Your task to perform on an android device: delete location history Image 0: 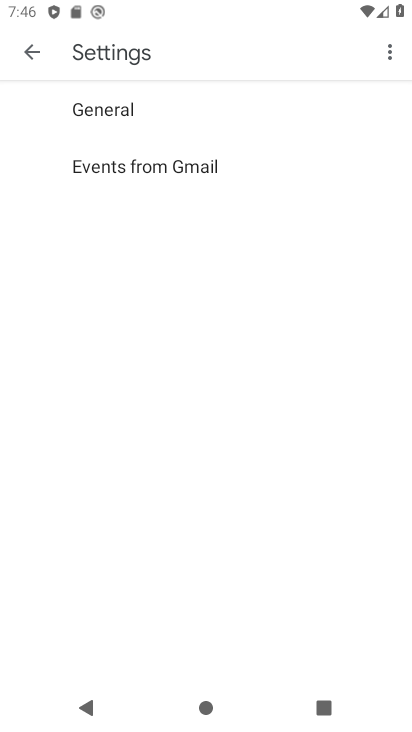
Step 0: press home button
Your task to perform on an android device: delete location history Image 1: 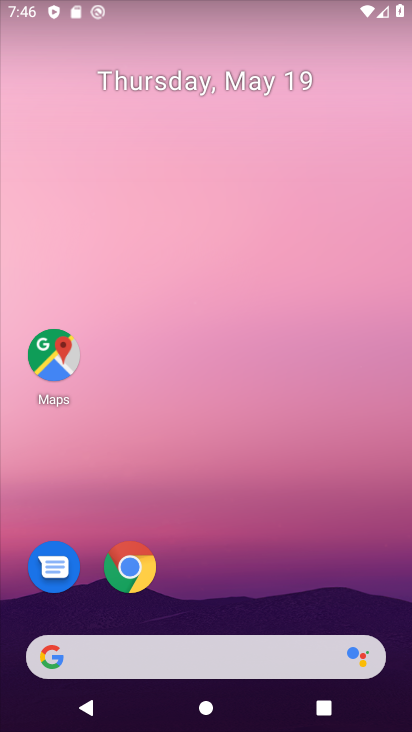
Step 1: click (55, 357)
Your task to perform on an android device: delete location history Image 2: 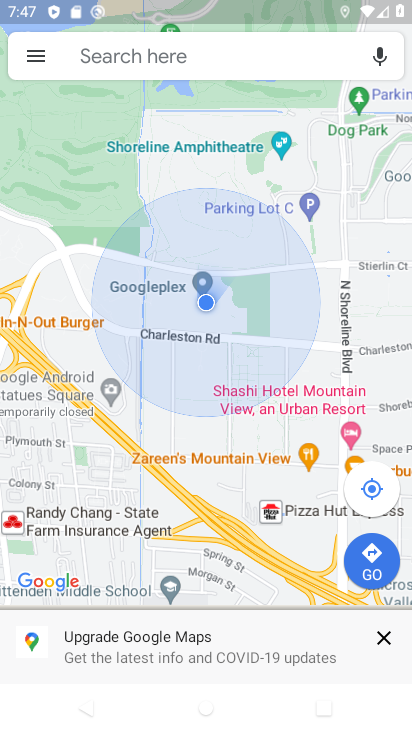
Step 2: click (34, 53)
Your task to perform on an android device: delete location history Image 3: 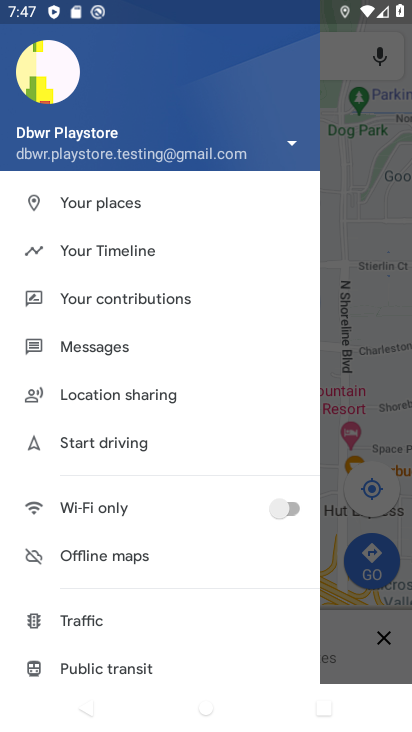
Step 3: click (100, 253)
Your task to perform on an android device: delete location history Image 4: 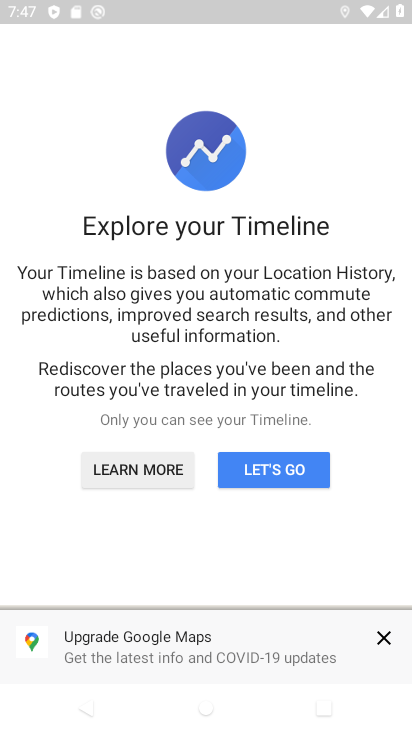
Step 4: click (269, 473)
Your task to perform on an android device: delete location history Image 5: 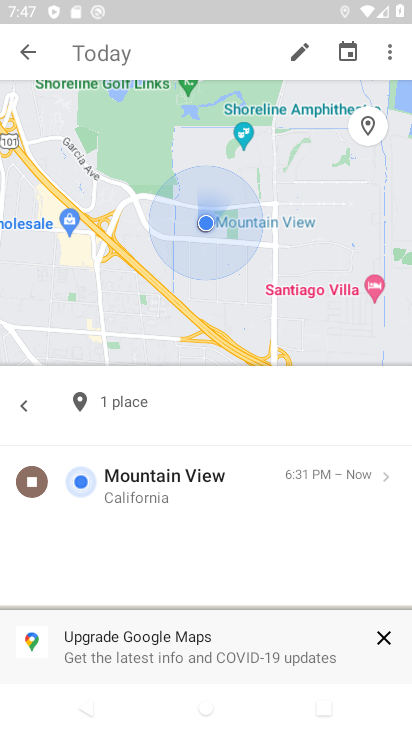
Step 5: click (392, 50)
Your task to perform on an android device: delete location history Image 6: 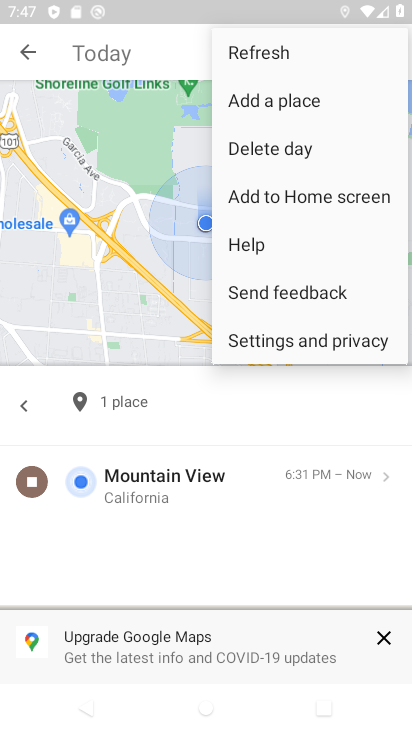
Step 6: click (234, 343)
Your task to perform on an android device: delete location history Image 7: 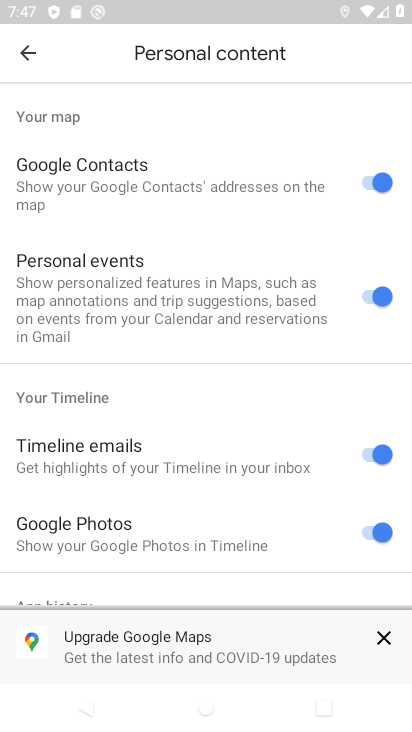
Step 7: drag from (127, 478) to (204, 174)
Your task to perform on an android device: delete location history Image 8: 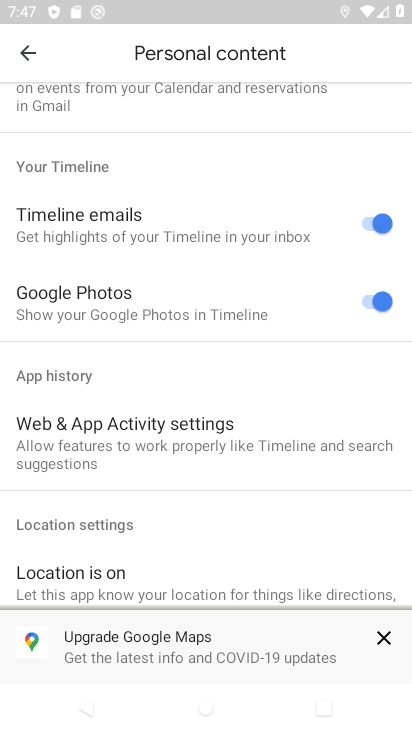
Step 8: drag from (160, 524) to (224, 188)
Your task to perform on an android device: delete location history Image 9: 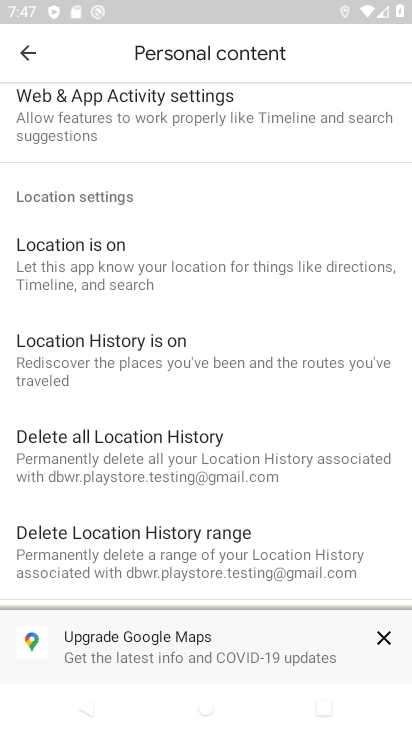
Step 9: click (204, 450)
Your task to perform on an android device: delete location history Image 10: 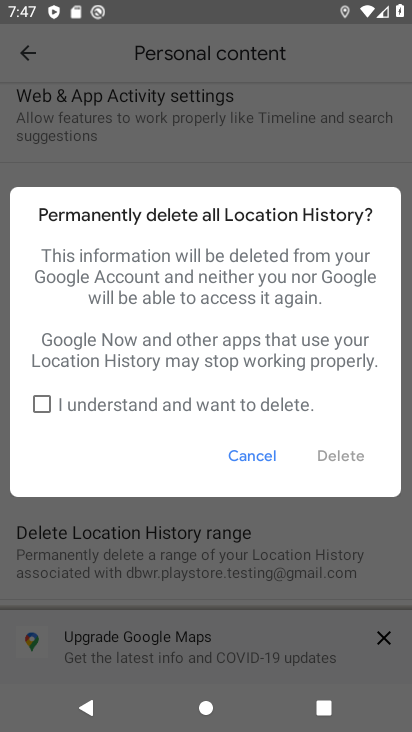
Step 10: click (40, 406)
Your task to perform on an android device: delete location history Image 11: 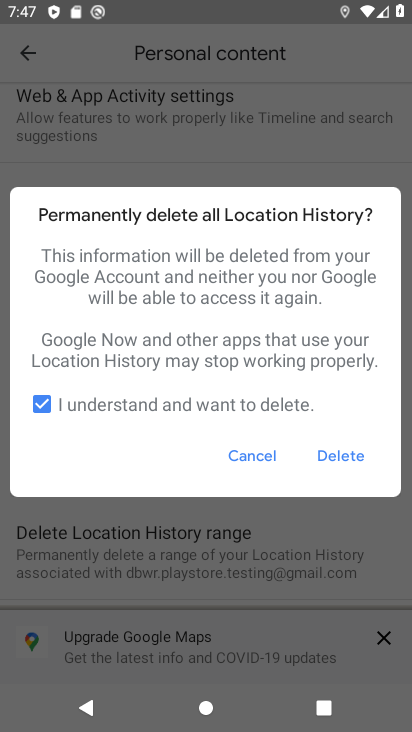
Step 11: click (352, 462)
Your task to perform on an android device: delete location history Image 12: 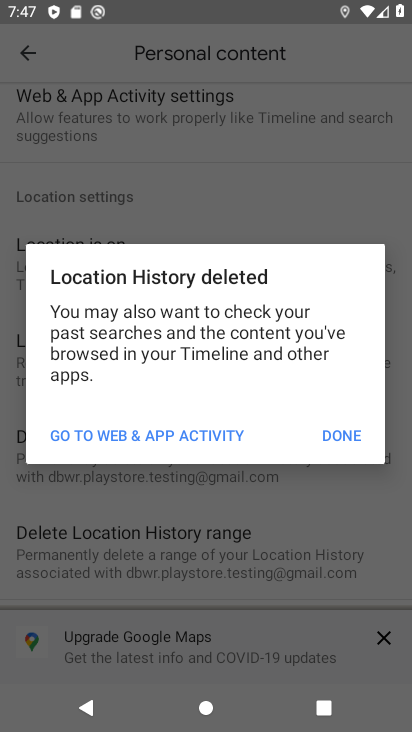
Step 12: click (346, 438)
Your task to perform on an android device: delete location history Image 13: 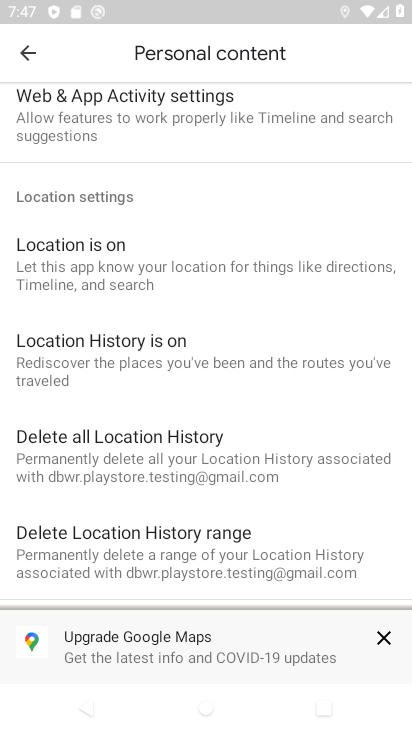
Step 13: task complete